Your task to perform on an android device: search for starred emails in the gmail app Image 0: 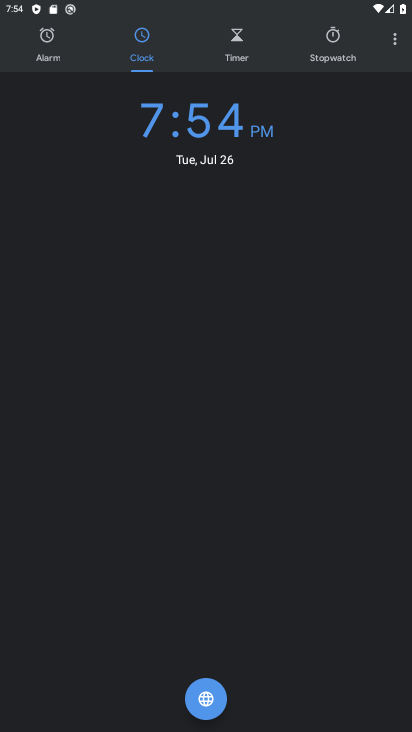
Step 0: press home button
Your task to perform on an android device: search for starred emails in the gmail app Image 1: 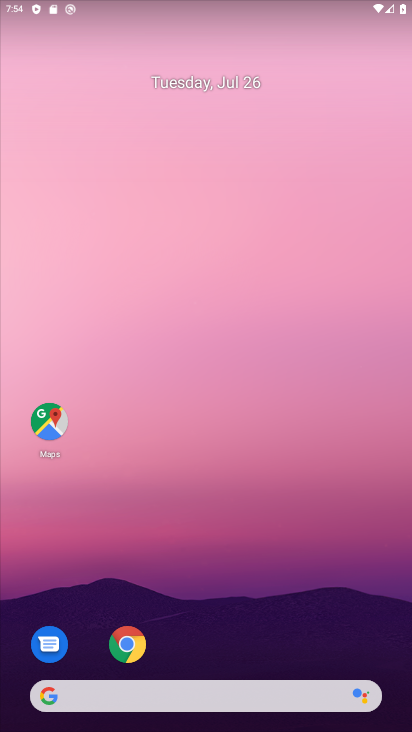
Step 1: drag from (177, 643) to (253, 77)
Your task to perform on an android device: search for starred emails in the gmail app Image 2: 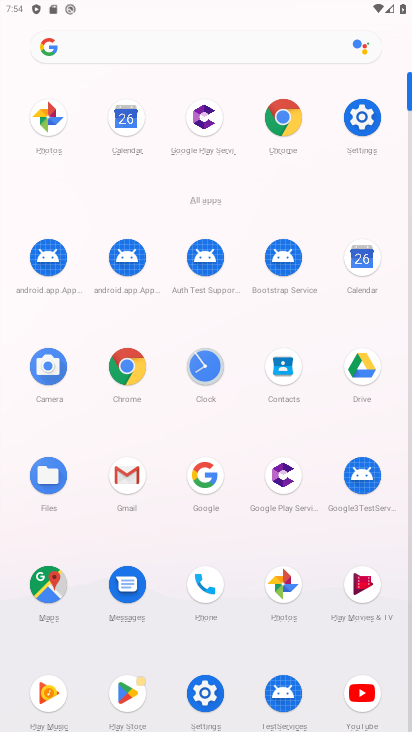
Step 2: click (120, 484)
Your task to perform on an android device: search for starred emails in the gmail app Image 3: 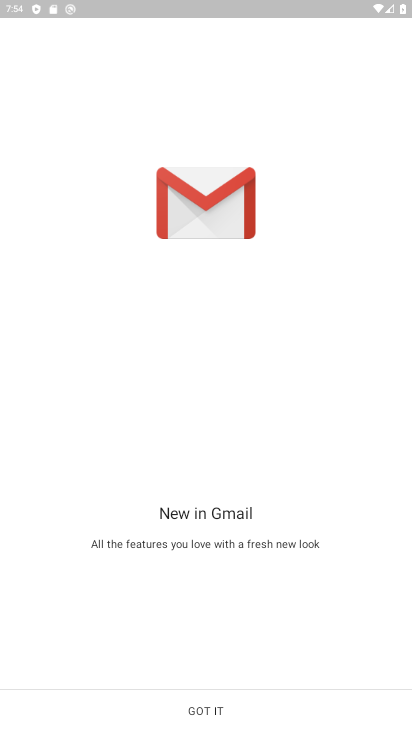
Step 3: click (221, 701)
Your task to perform on an android device: search for starred emails in the gmail app Image 4: 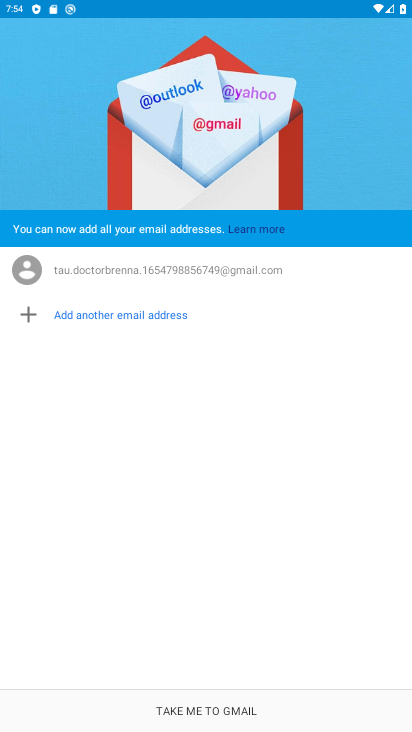
Step 4: click (212, 709)
Your task to perform on an android device: search for starred emails in the gmail app Image 5: 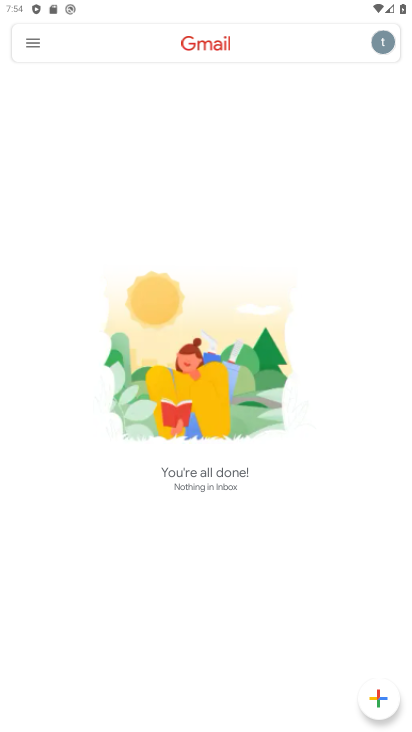
Step 5: click (34, 40)
Your task to perform on an android device: search for starred emails in the gmail app Image 6: 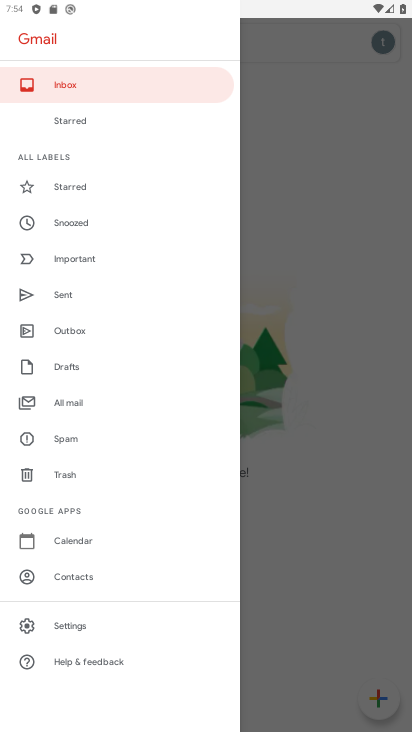
Step 6: click (84, 180)
Your task to perform on an android device: search for starred emails in the gmail app Image 7: 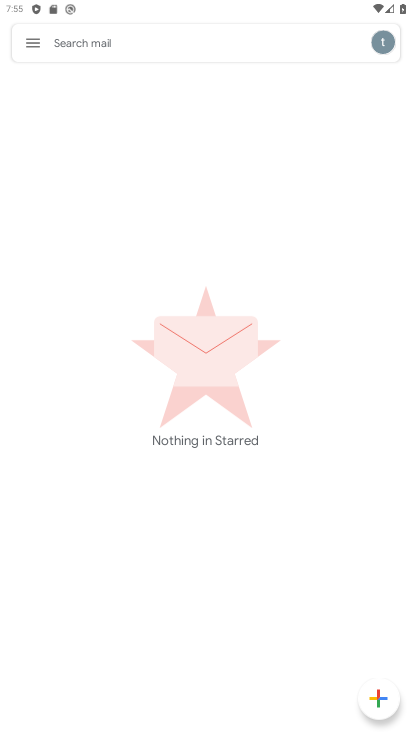
Step 7: task complete